Your task to perform on an android device: What's on my calendar tomorrow? Image 0: 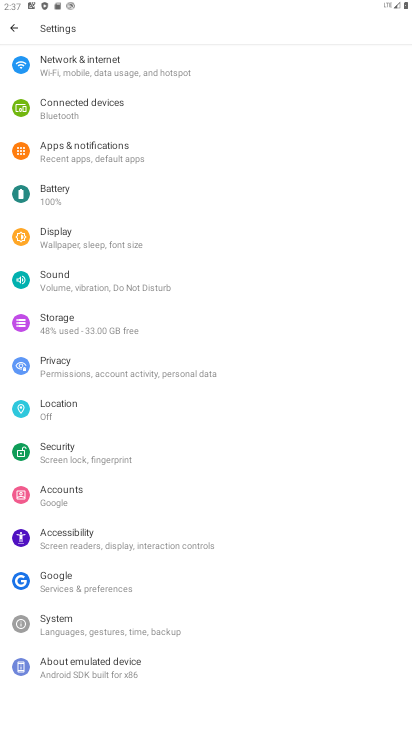
Step 0: press home button
Your task to perform on an android device: What's on my calendar tomorrow? Image 1: 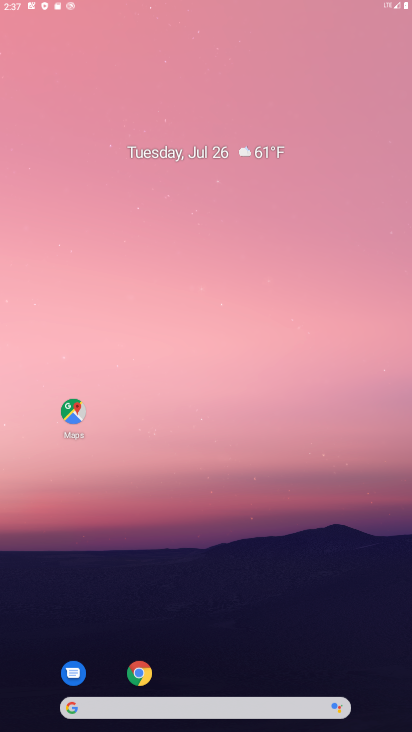
Step 1: drag from (241, 551) to (292, 138)
Your task to perform on an android device: What's on my calendar tomorrow? Image 2: 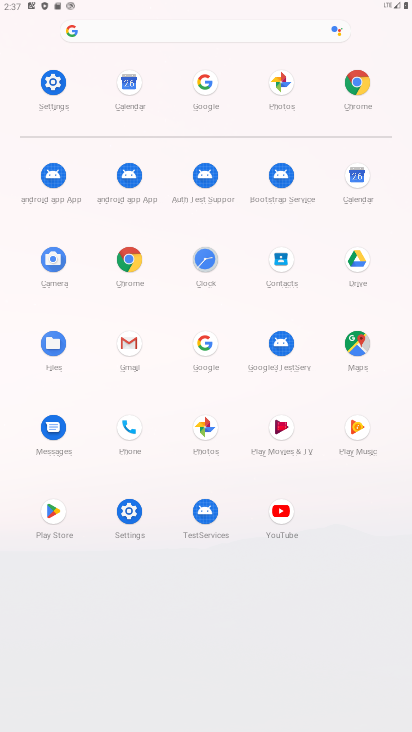
Step 2: click (354, 174)
Your task to perform on an android device: What's on my calendar tomorrow? Image 3: 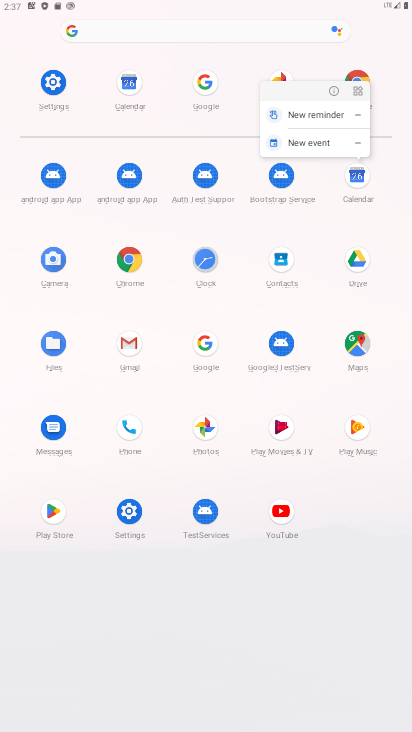
Step 3: click (335, 95)
Your task to perform on an android device: What's on my calendar tomorrow? Image 4: 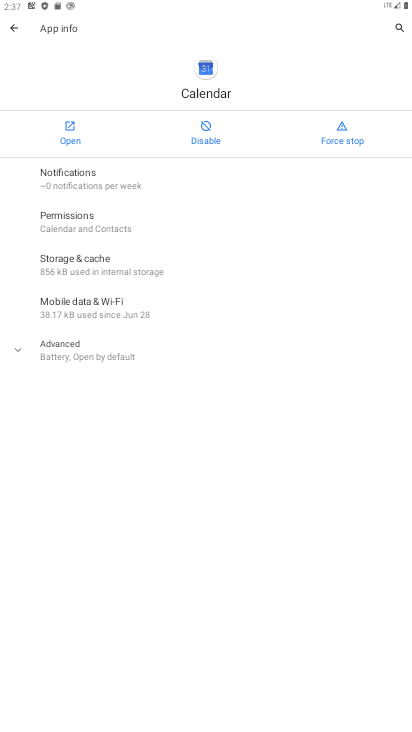
Step 4: click (77, 127)
Your task to perform on an android device: What's on my calendar tomorrow? Image 5: 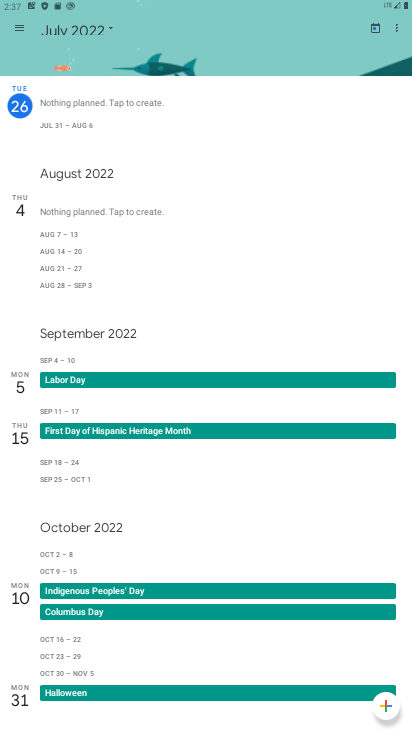
Step 5: click (96, 20)
Your task to perform on an android device: What's on my calendar tomorrow? Image 6: 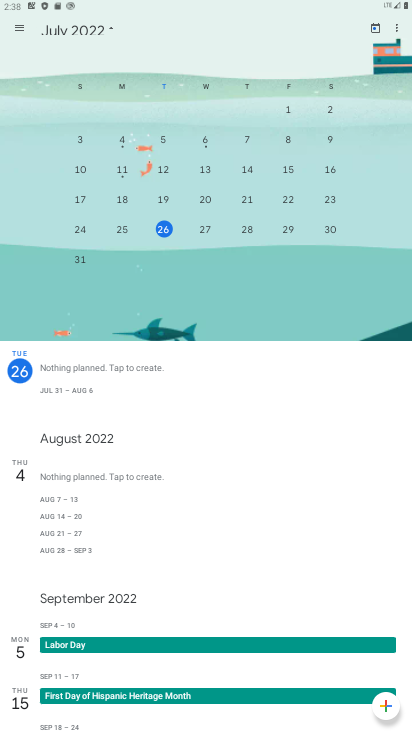
Step 6: click (202, 227)
Your task to perform on an android device: What's on my calendar tomorrow? Image 7: 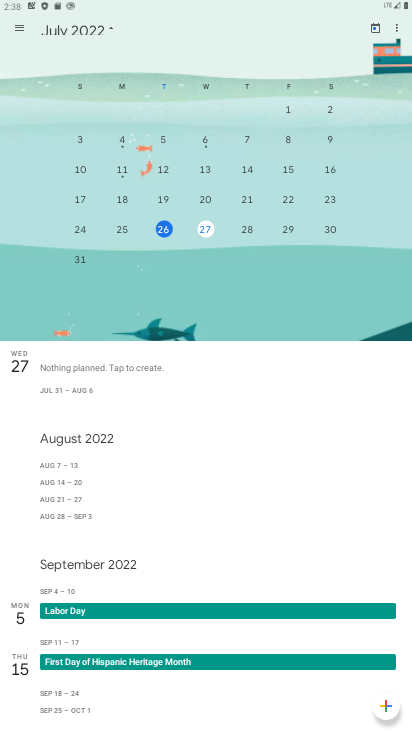
Step 7: task complete